Your task to perform on an android device: open app "ColorNote Notepad Notes" (install if not already installed) Image 0: 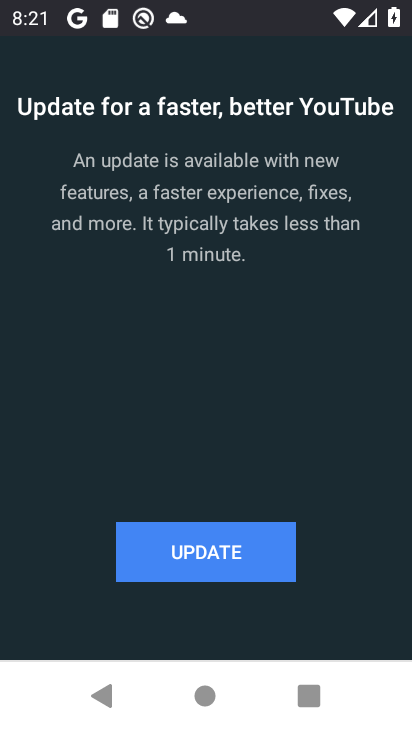
Step 0: press back button
Your task to perform on an android device: open app "ColorNote Notepad Notes" (install if not already installed) Image 1: 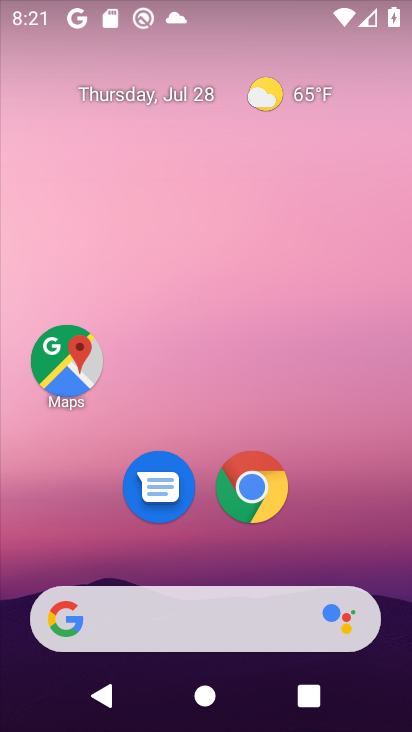
Step 1: drag from (227, 630) to (214, 284)
Your task to perform on an android device: open app "ColorNote Notepad Notes" (install if not already installed) Image 2: 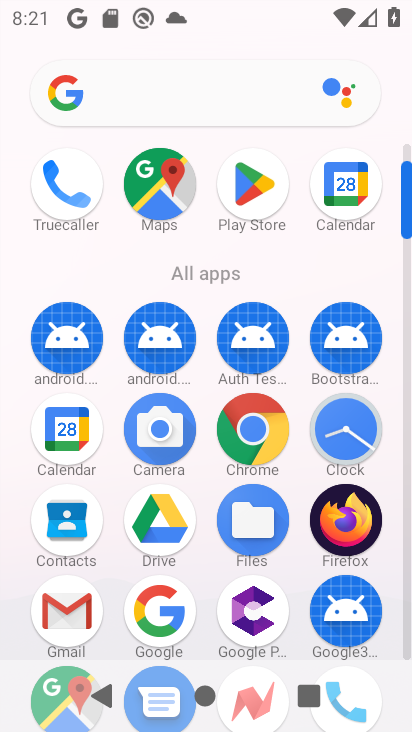
Step 2: click (249, 185)
Your task to perform on an android device: open app "ColorNote Notepad Notes" (install if not already installed) Image 3: 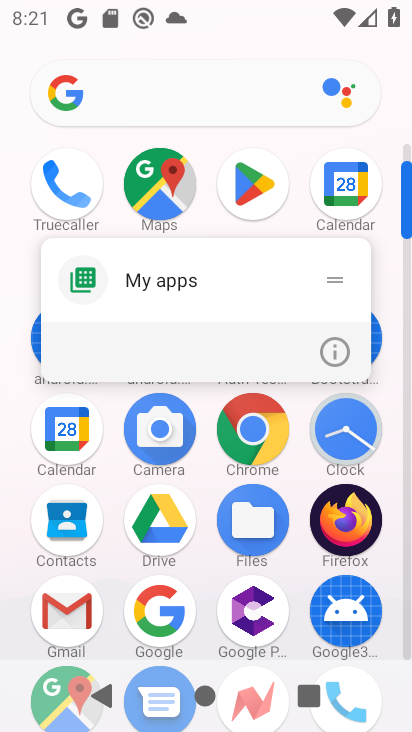
Step 3: click (242, 184)
Your task to perform on an android device: open app "ColorNote Notepad Notes" (install if not already installed) Image 4: 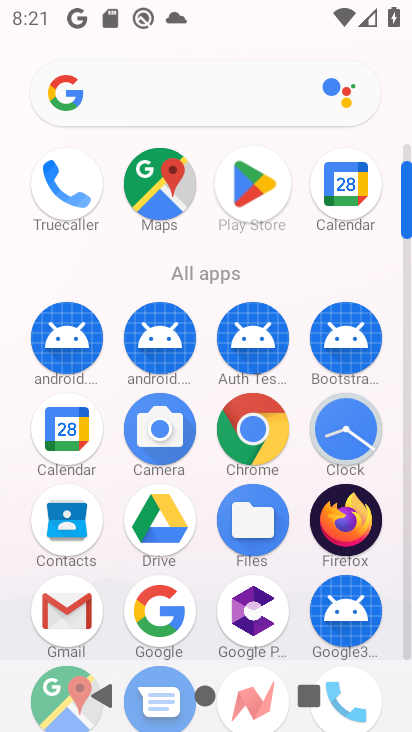
Step 4: click (244, 184)
Your task to perform on an android device: open app "ColorNote Notepad Notes" (install if not already installed) Image 5: 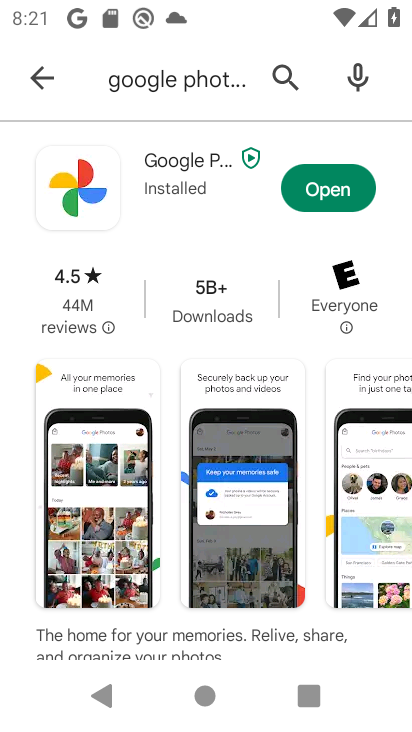
Step 5: click (49, 79)
Your task to perform on an android device: open app "ColorNote Notepad Notes" (install if not already installed) Image 6: 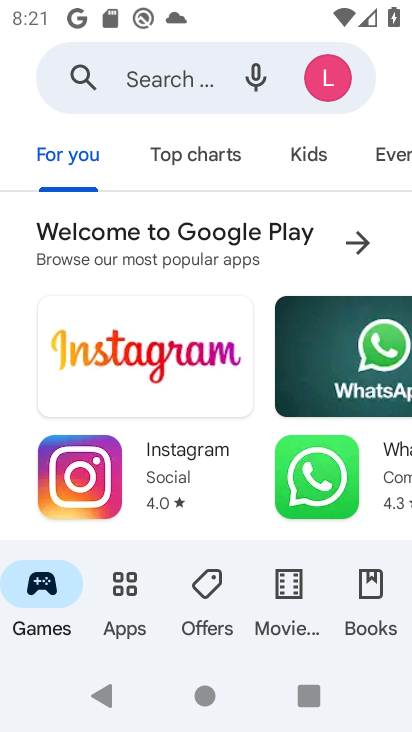
Step 6: type "colornote notepad notes"
Your task to perform on an android device: open app "ColorNote Notepad Notes" (install if not already installed) Image 7: 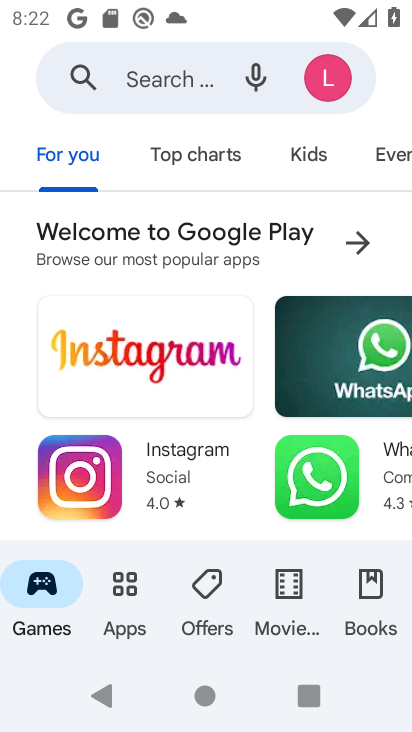
Step 7: click (171, 71)
Your task to perform on an android device: open app "ColorNote Notepad Notes" (install if not already installed) Image 8: 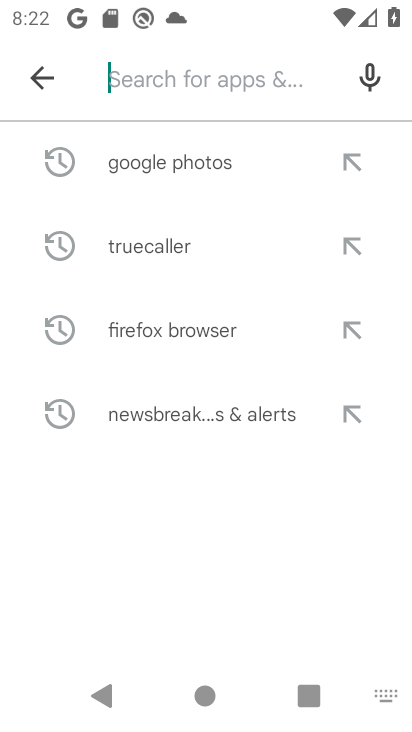
Step 8: click (164, 84)
Your task to perform on an android device: open app "ColorNote Notepad Notes" (install if not already installed) Image 9: 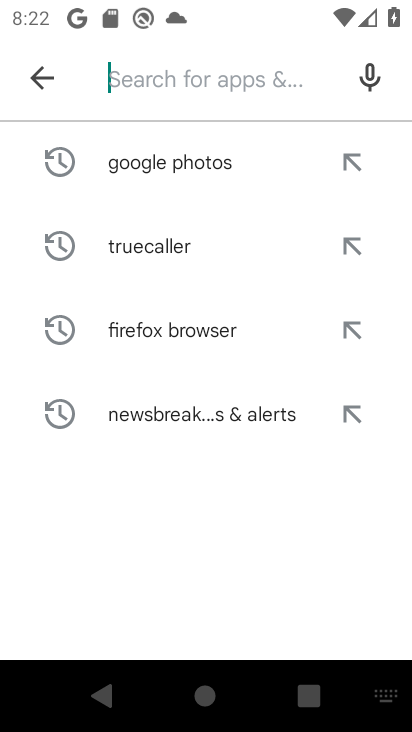
Step 9: type "colornote notepad notes"
Your task to perform on an android device: open app "ColorNote Notepad Notes" (install if not already installed) Image 10: 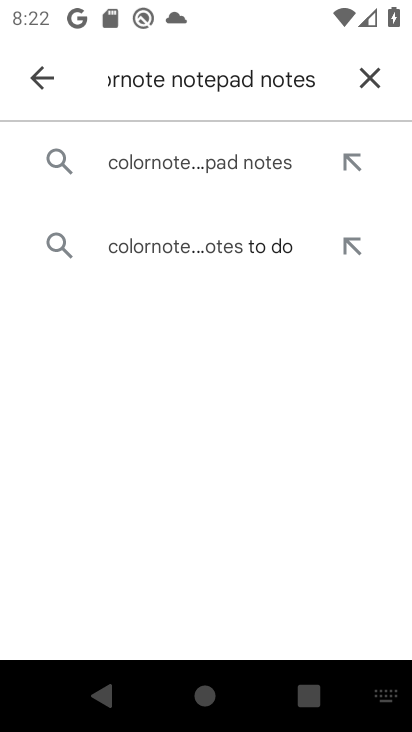
Step 10: click (271, 159)
Your task to perform on an android device: open app "ColorNote Notepad Notes" (install if not already installed) Image 11: 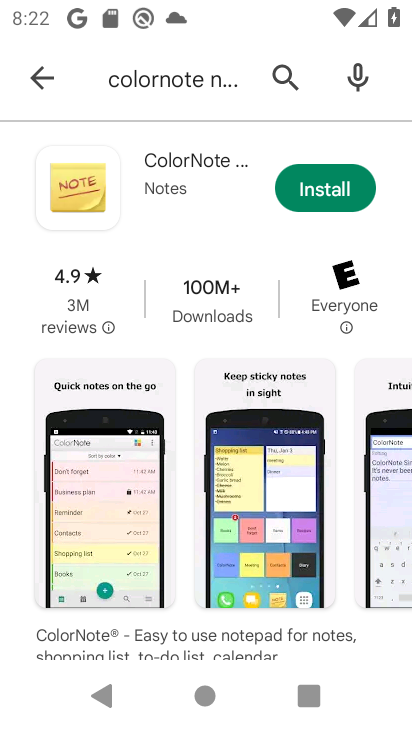
Step 11: click (333, 195)
Your task to perform on an android device: open app "ColorNote Notepad Notes" (install if not already installed) Image 12: 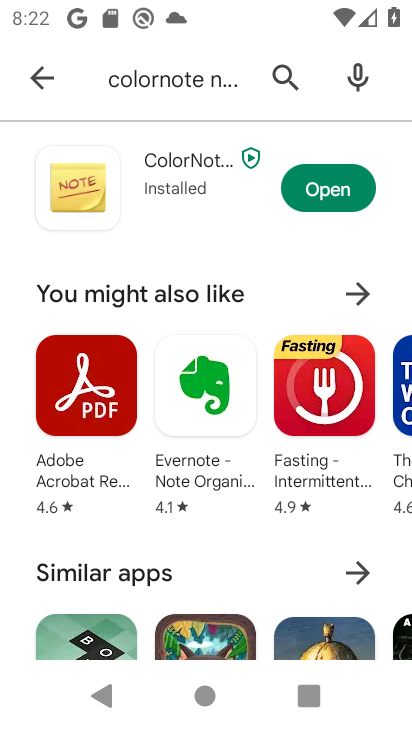
Step 12: click (319, 188)
Your task to perform on an android device: open app "ColorNote Notepad Notes" (install if not already installed) Image 13: 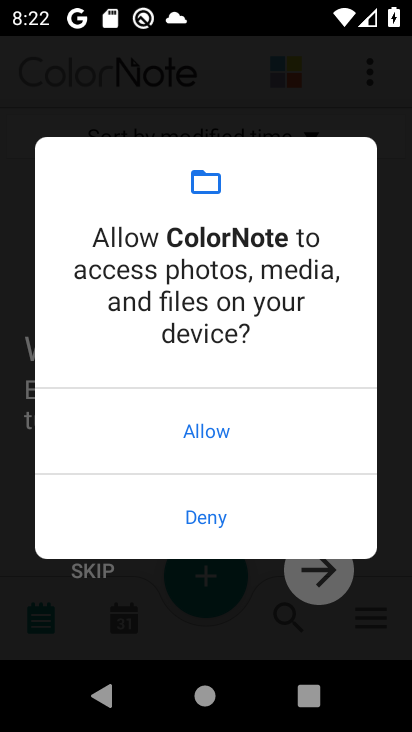
Step 13: click (196, 434)
Your task to perform on an android device: open app "ColorNote Notepad Notes" (install if not already installed) Image 14: 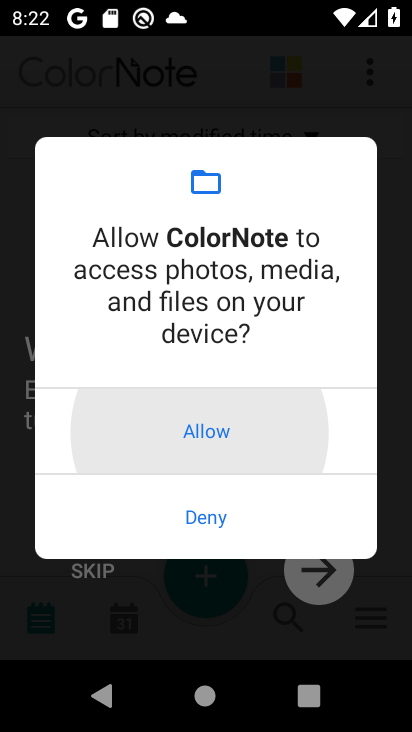
Step 14: click (196, 433)
Your task to perform on an android device: open app "ColorNote Notepad Notes" (install if not already installed) Image 15: 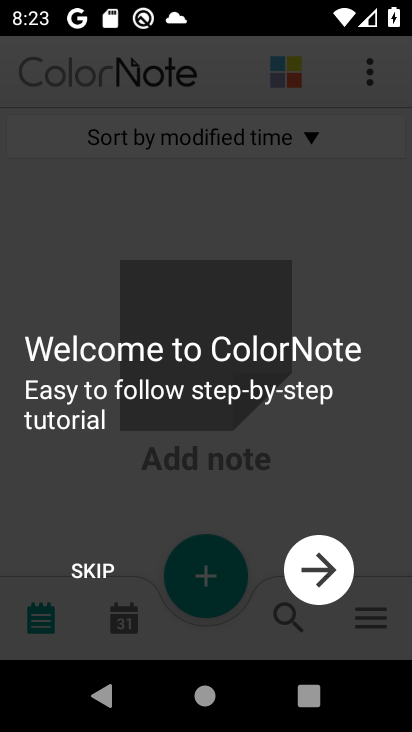
Step 15: click (90, 560)
Your task to perform on an android device: open app "ColorNote Notepad Notes" (install if not already installed) Image 16: 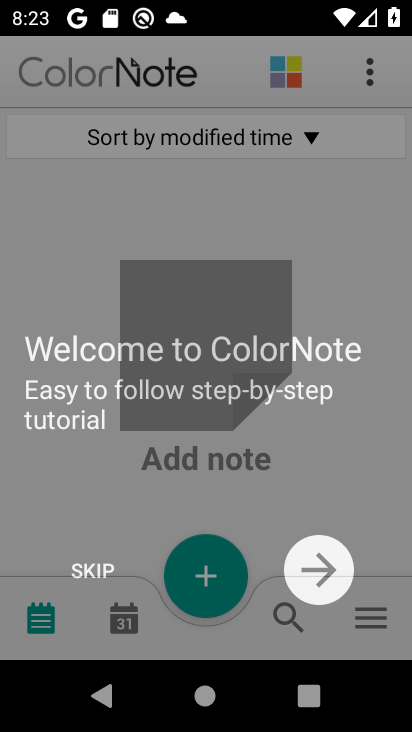
Step 16: click (84, 570)
Your task to perform on an android device: open app "ColorNote Notepad Notes" (install if not already installed) Image 17: 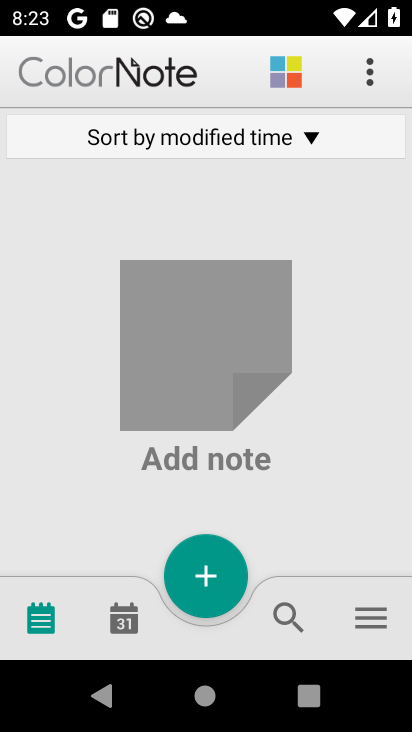
Step 17: task complete